Your task to perform on an android device: turn on priority inbox in the gmail app Image 0: 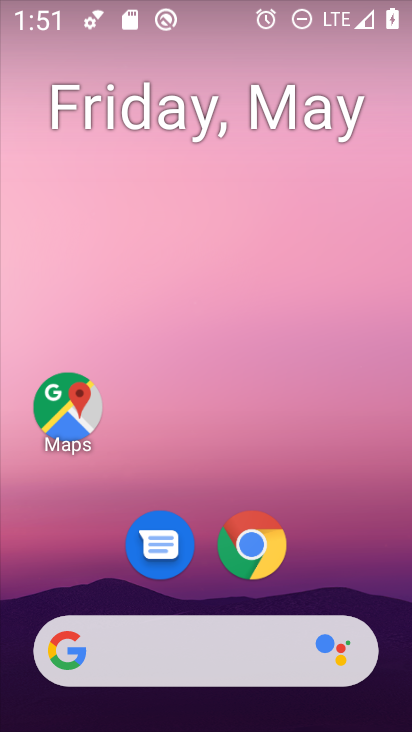
Step 0: drag from (329, 527) to (316, 296)
Your task to perform on an android device: turn on priority inbox in the gmail app Image 1: 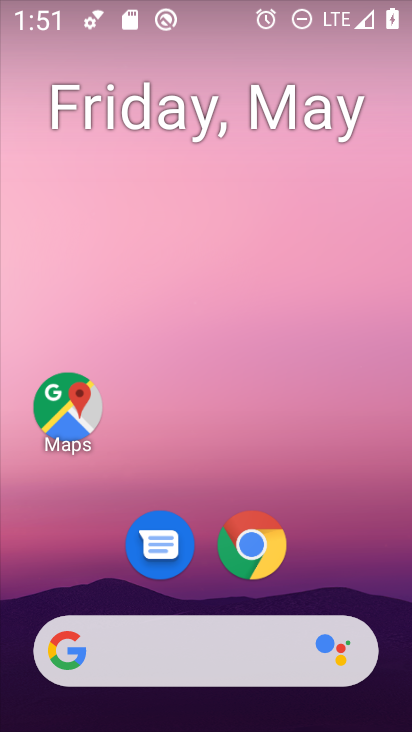
Step 1: drag from (319, 472) to (315, 229)
Your task to perform on an android device: turn on priority inbox in the gmail app Image 2: 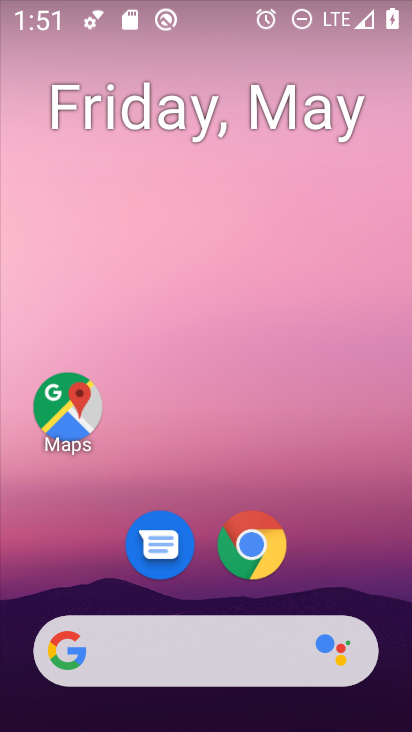
Step 2: drag from (330, 584) to (319, 191)
Your task to perform on an android device: turn on priority inbox in the gmail app Image 3: 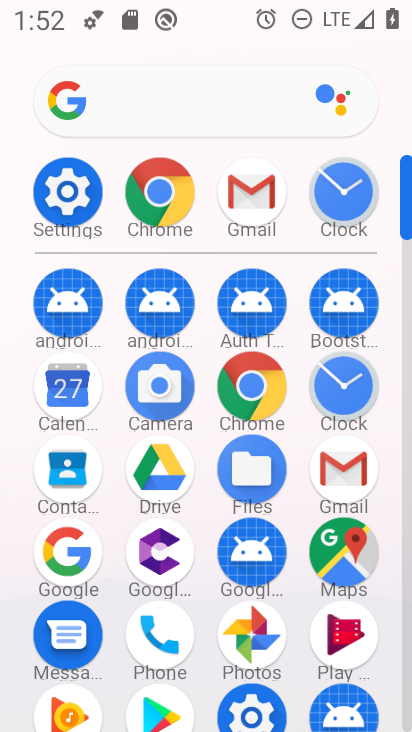
Step 3: click (341, 473)
Your task to perform on an android device: turn on priority inbox in the gmail app Image 4: 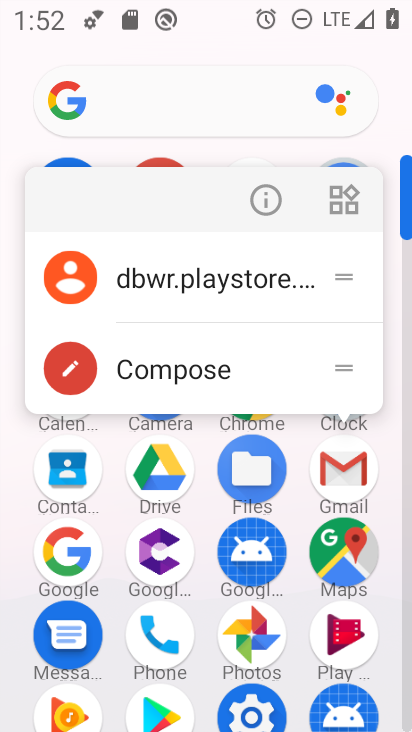
Step 4: click (329, 468)
Your task to perform on an android device: turn on priority inbox in the gmail app Image 5: 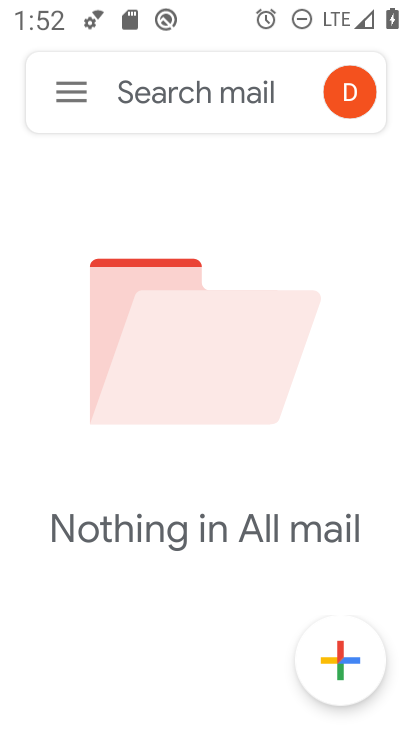
Step 5: click (63, 87)
Your task to perform on an android device: turn on priority inbox in the gmail app Image 6: 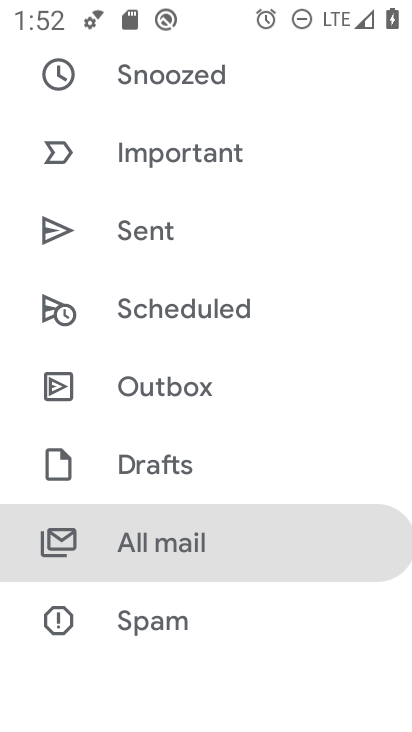
Step 6: drag from (232, 544) to (266, 110)
Your task to perform on an android device: turn on priority inbox in the gmail app Image 7: 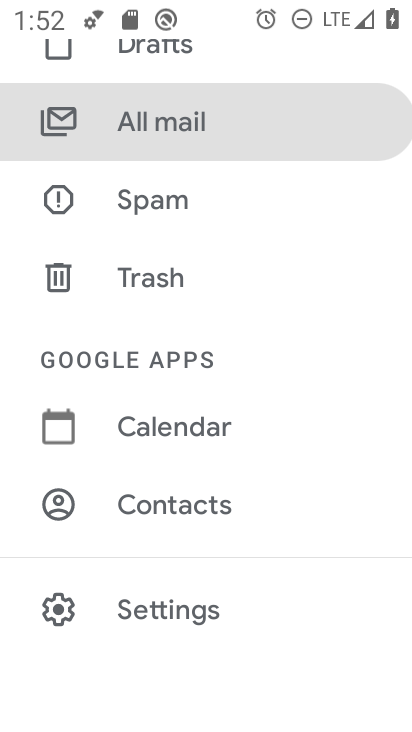
Step 7: click (187, 593)
Your task to perform on an android device: turn on priority inbox in the gmail app Image 8: 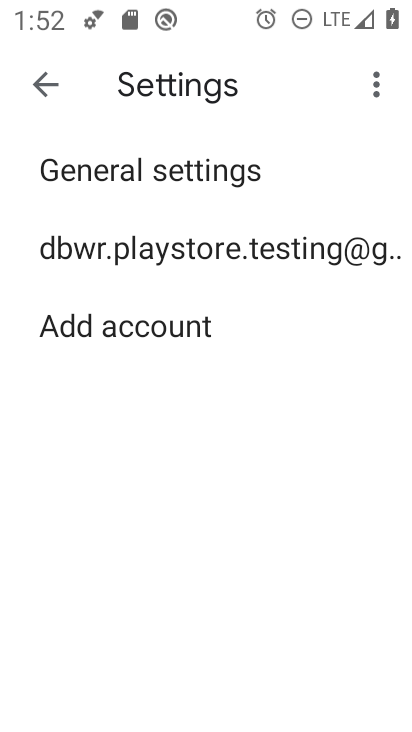
Step 8: click (150, 221)
Your task to perform on an android device: turn on priority inbox in the gmail app Image 9: 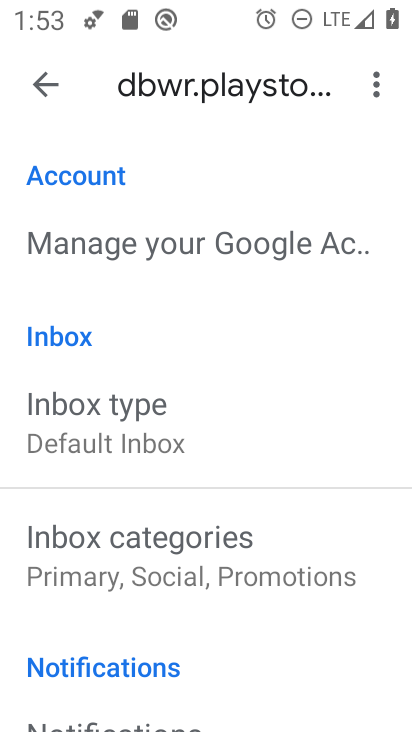
Step 9: click (163, 434)
Your task to perform on an android device: turn on priority inbox in the gmail app Image 10: 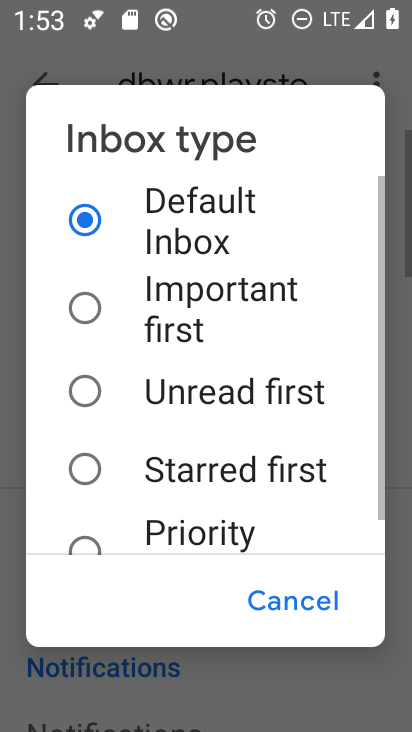
Step 10: click (186, 527)
Your task to perform on an android device: turn on priority inbox in the gmail app Image 11: 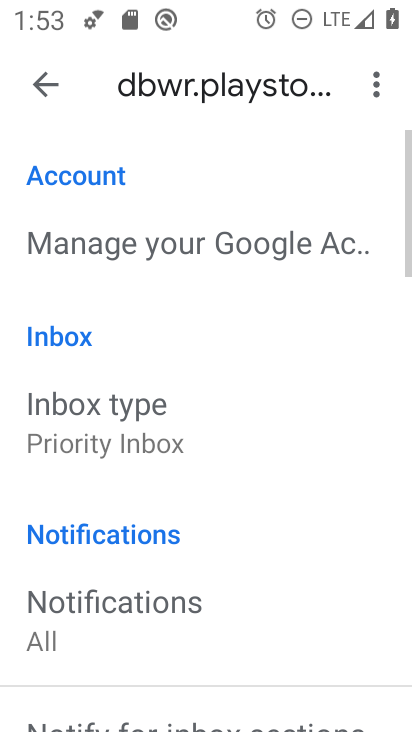
Step 11: task complete